Your task to perform on an android device: turn off priority inbox in the gmail app Image 0: 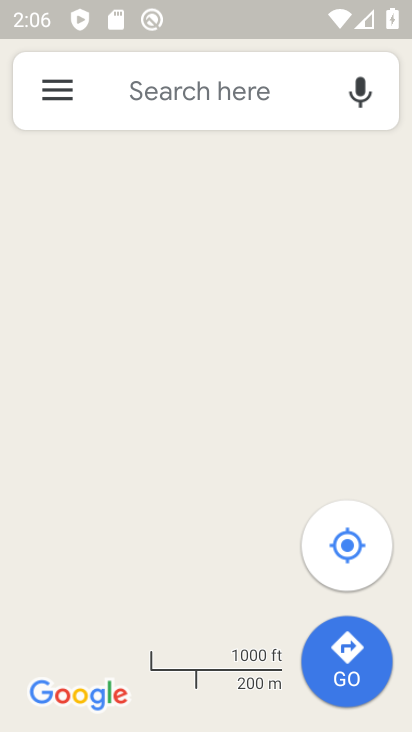
Step 0: press home button
Your task to perform on an android device: turn off priority inbox in the gmail app Image 1: 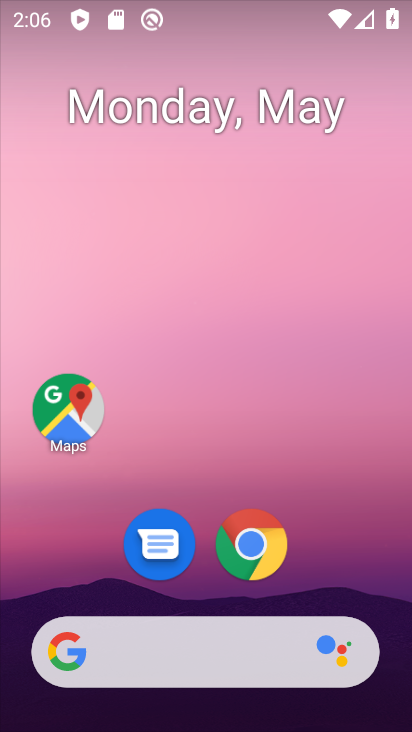
Step 1: drag from (196, 593) to (198, 179)
Your task to perform on an android device: turn off priority inbox in the gmail app Image 2: 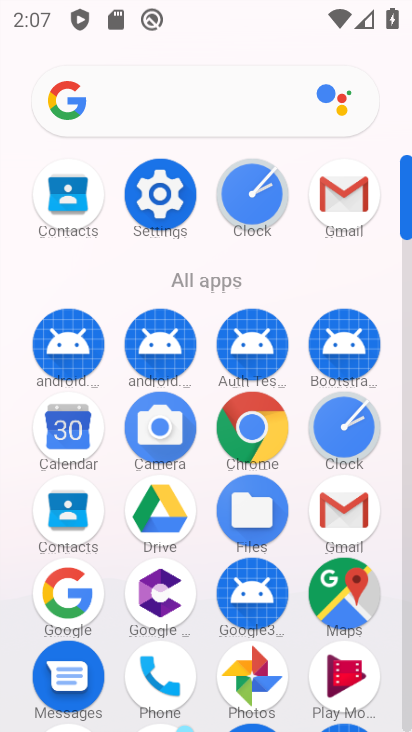
Step 2: click (340, 198)
Your task to perform on an android device: turn off priority inbox in the gmail app Image 3: 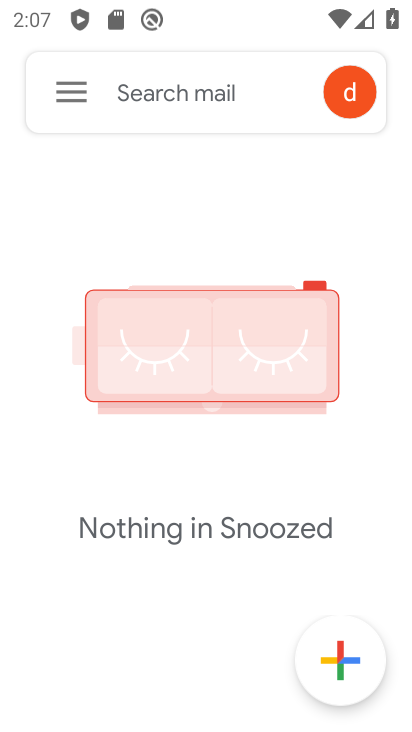
Step 3: click (65, 107)
Your task to perform on an android device: turn off priority inbox in the gmail app Image 4: 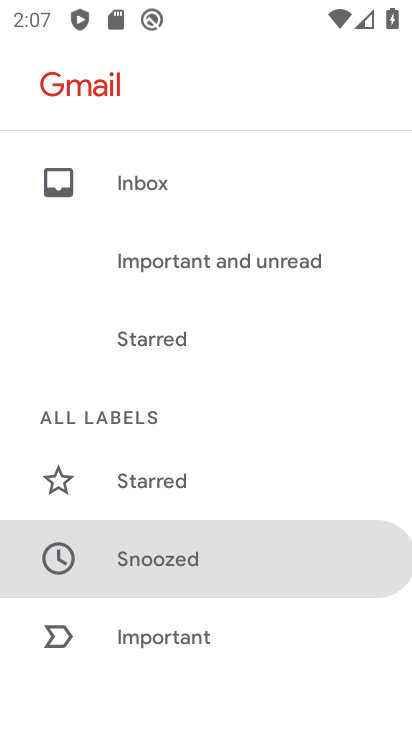
Step 4: drag from (146, 547) to (174, 276)
Your task to perform on an android device: turn off priority inbox in the gmail app Image 5: 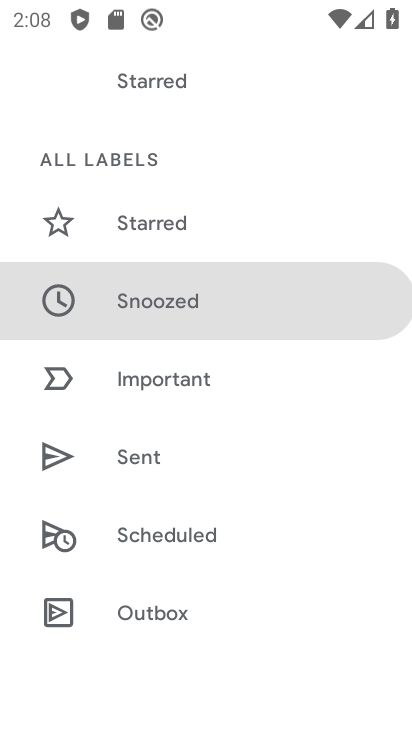
Step 5: drag from (207, 573) to (244, 362)
Your task to perform on an android device: turn off priority inbox in the gmail app Image 6: 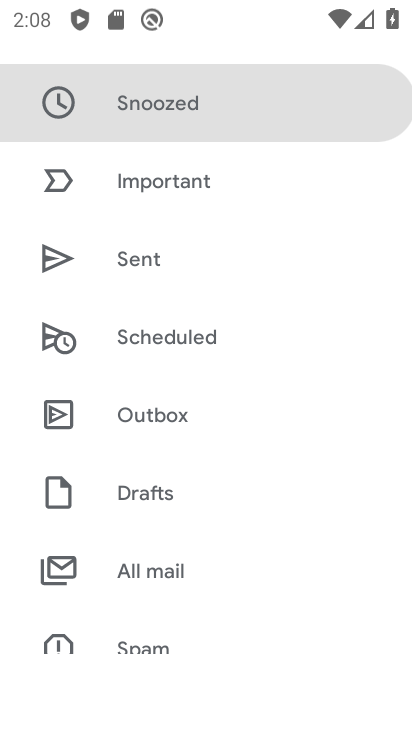
Step 6: drag from (221, 603) to (267, 315)
Your task to perform on an android device: turn off priority inbox in the gmail app Image 7: 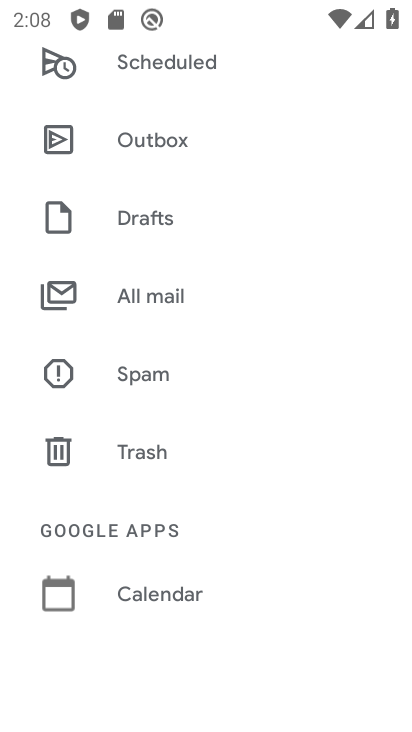
Step 7: drag from (188, 621) to (257, 348)
Your task to perform on an android device: turn off priority inbox in the gmail app Image 8: 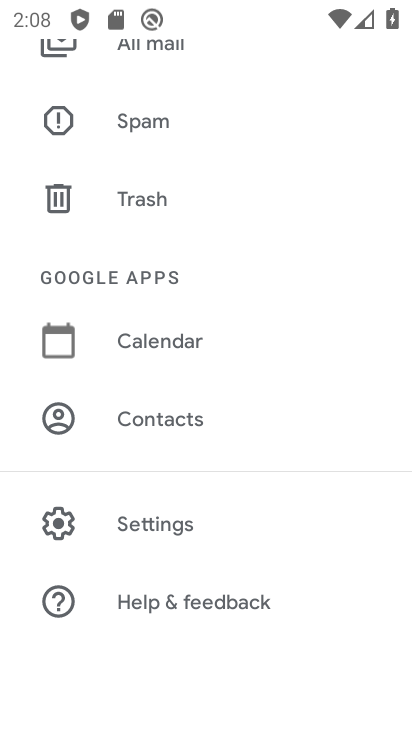
Step 8: click (214, 511)
Your task to perform on an android device: turn off priority inbox in the gmail app Image 9: 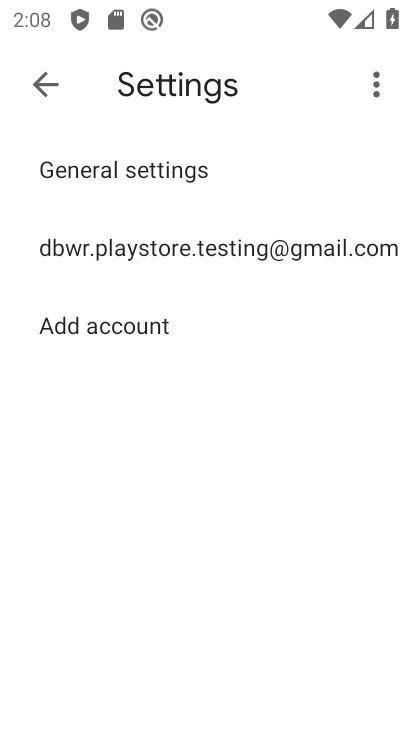
Step 9: click (241, 269)
Your task to perform on an android device: turn off priority inbox in the gmail app Image 10: 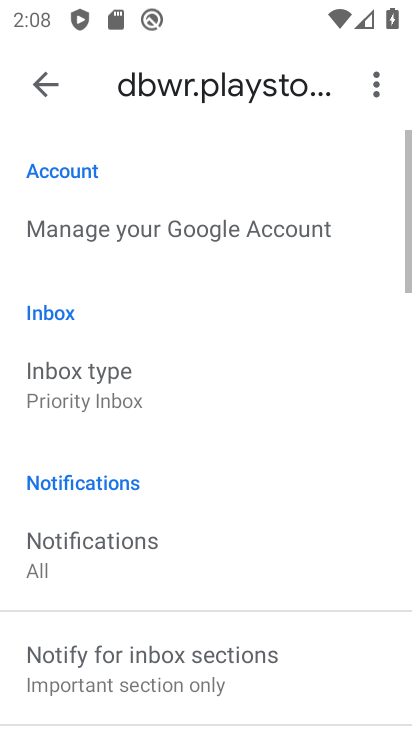
Step 10: drag from (235, 597) to (244, 348)
Your task to perform on an android device: turn off priority inbox in the gmail app Image 11: 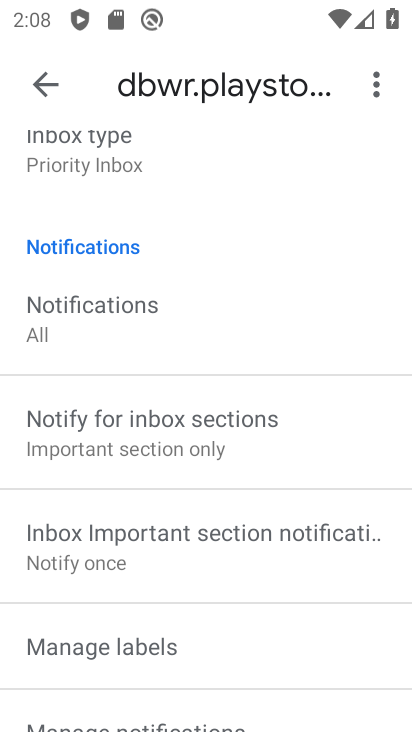
Step 11: click (204, 137)
Your task to perform on an android device: turn off priority inbox in the gmail app Image 12: 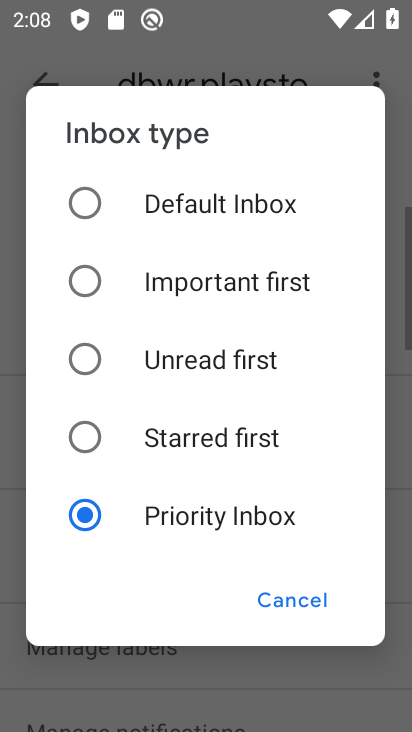
Step 12: click (181, 202)
Your task to perform on an android device: turn off priority inbox in the gmail app Image 13: 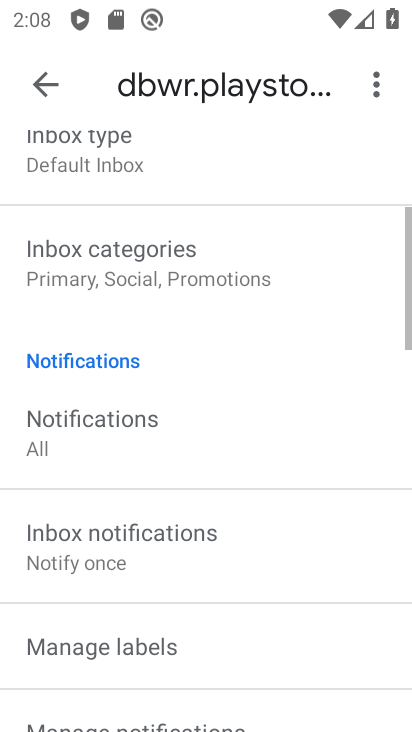
Step 13: task complete